Your task to perform on an android device: open app "Indeed Job Search" (install if not already installed) Image 0: 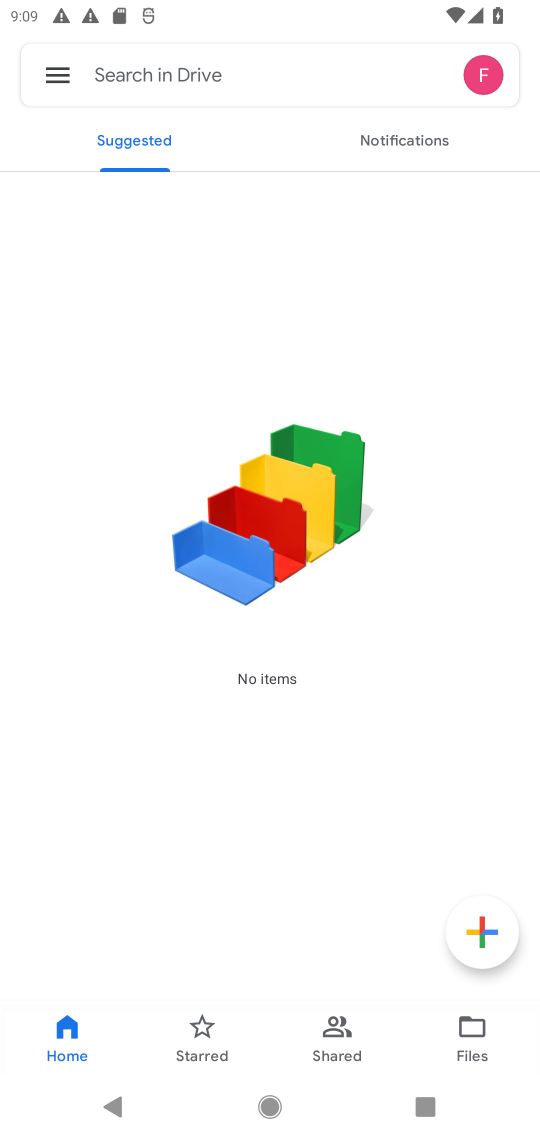
Step 0: press home button
Your task to perform on an android device: open app "Indeed Job Search" (install if not already installed) Image 1: 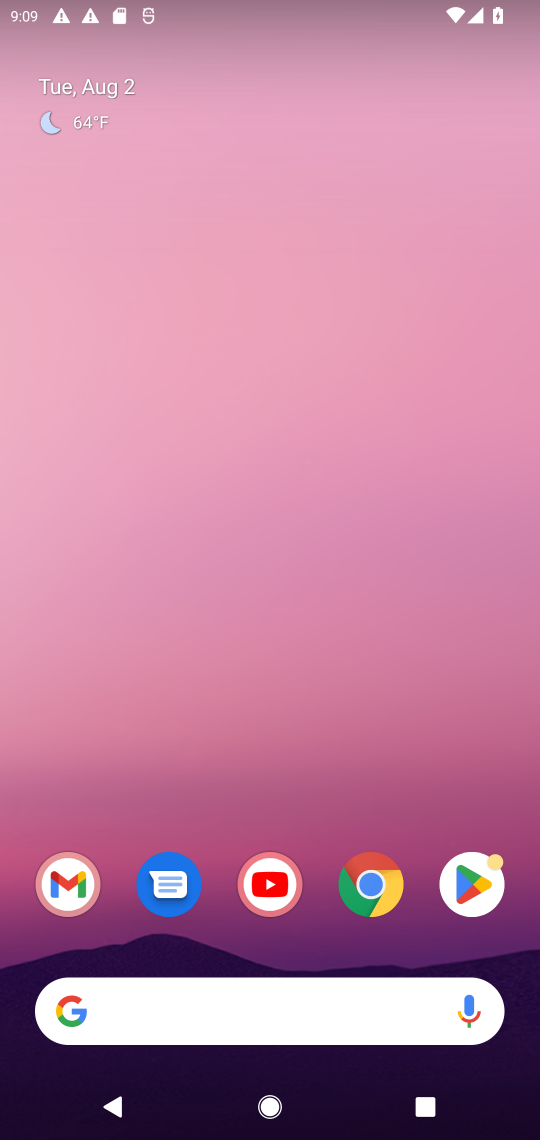
Step 1: click (475, 886)
Your task to perform on an android device: open app "Indeed Job Search" (install if not already installed) Image 2: 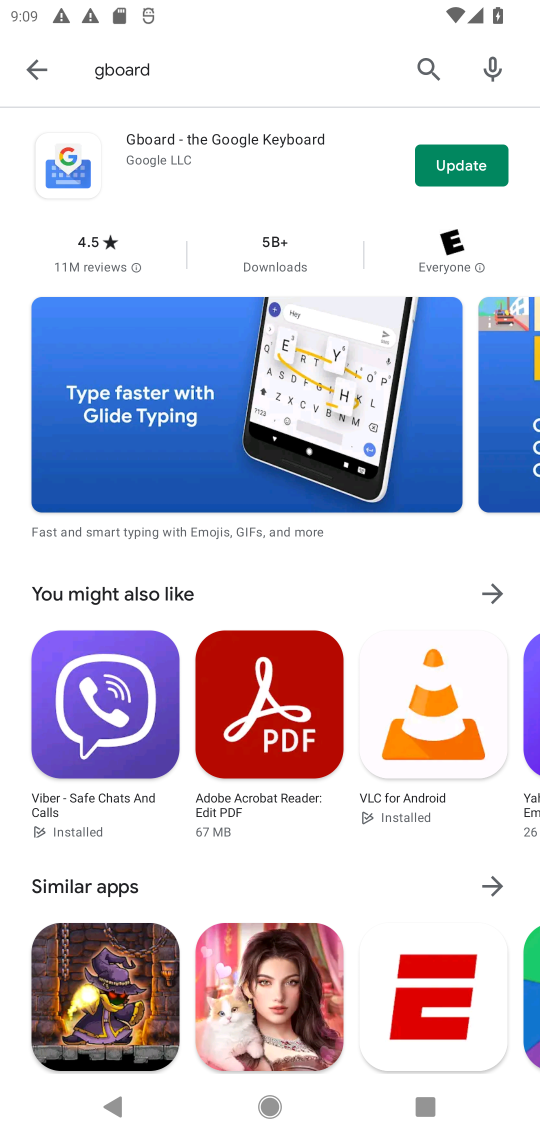
Step 2: click (417, 67)
Your task to perform on an android device: open app "Indeed Job Search" (install if not already installed) Image 3: 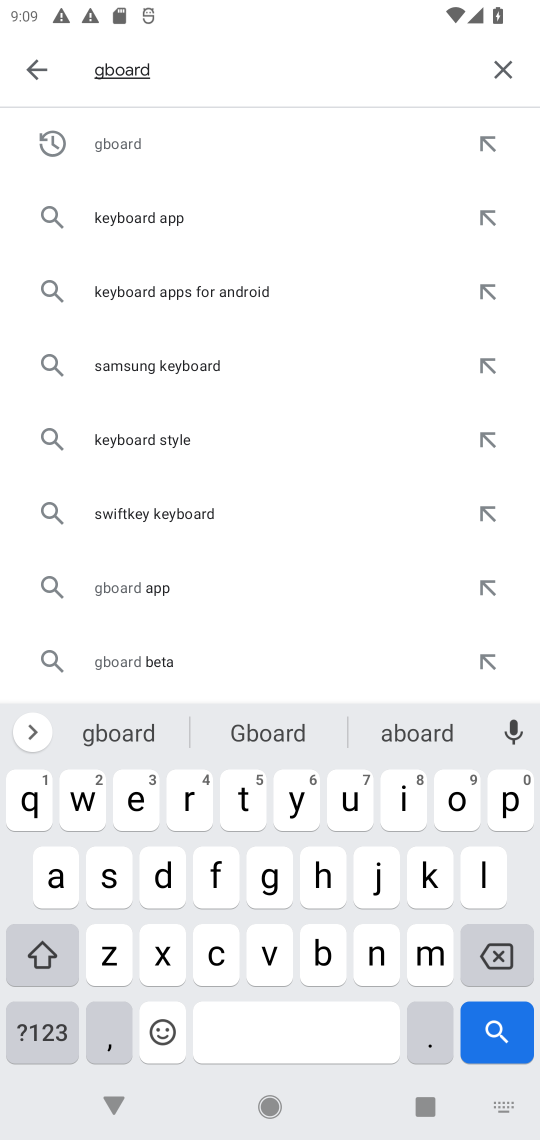
Step 3: click (506, 66)
Your task to perform on an android device: open app "Indeed Job Search" (install if not already installed) Image 4: 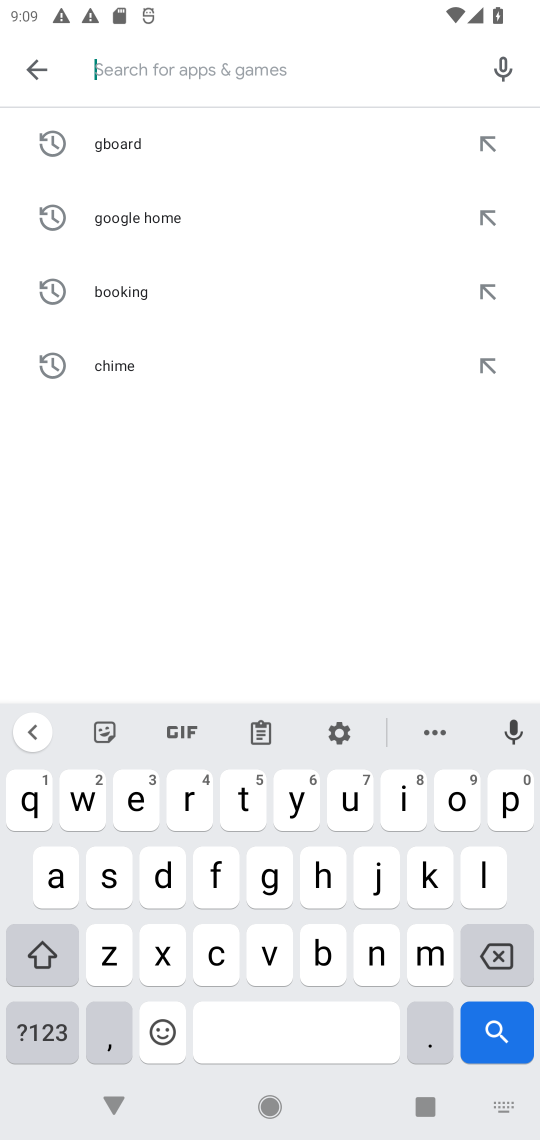
Step 4: click (400, 799)
Your task to perform on an android device: open app "Indeed Job Search" (install if not already installed) Image 5: 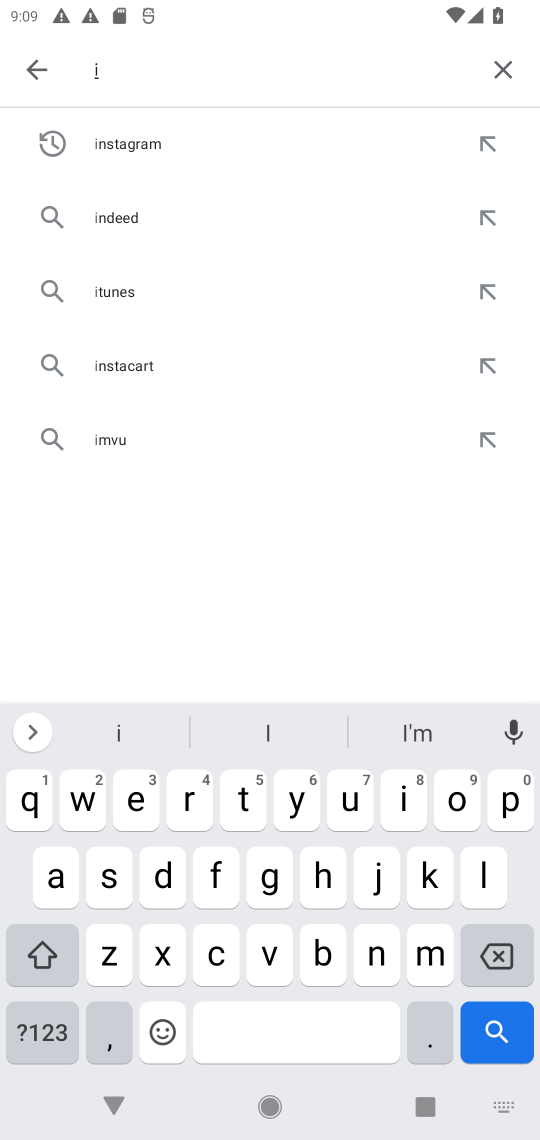
Step 5: click (370, 954)
Your task to perform on an android device: open app "Indeed Job Search" (install if not already installed) Image 6: 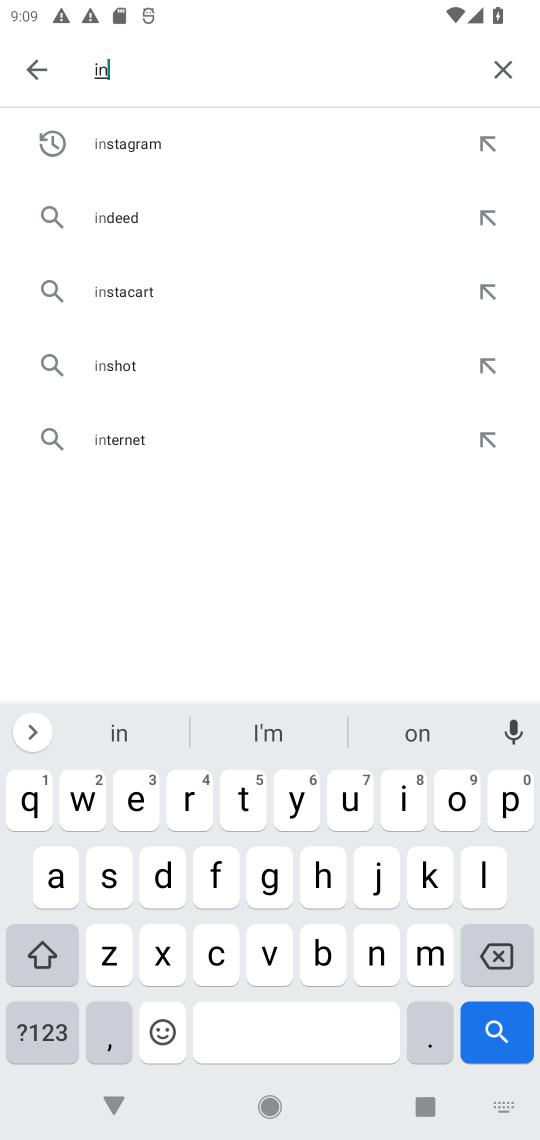
Step 6: click (112, 215)
Your task to perform on an android device: open app "Indeed Job Search" (install if not already installed) Image 7: 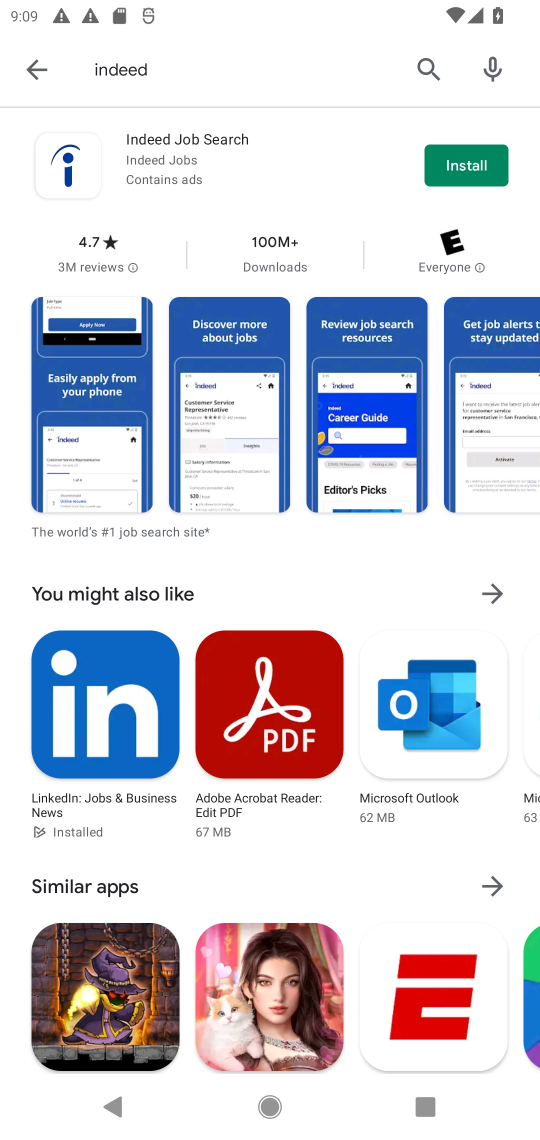
Step 7: click (470, 155)
Your task to perform on an android device: open app "Indeed Job Search" (install if not already installed) Image 8: 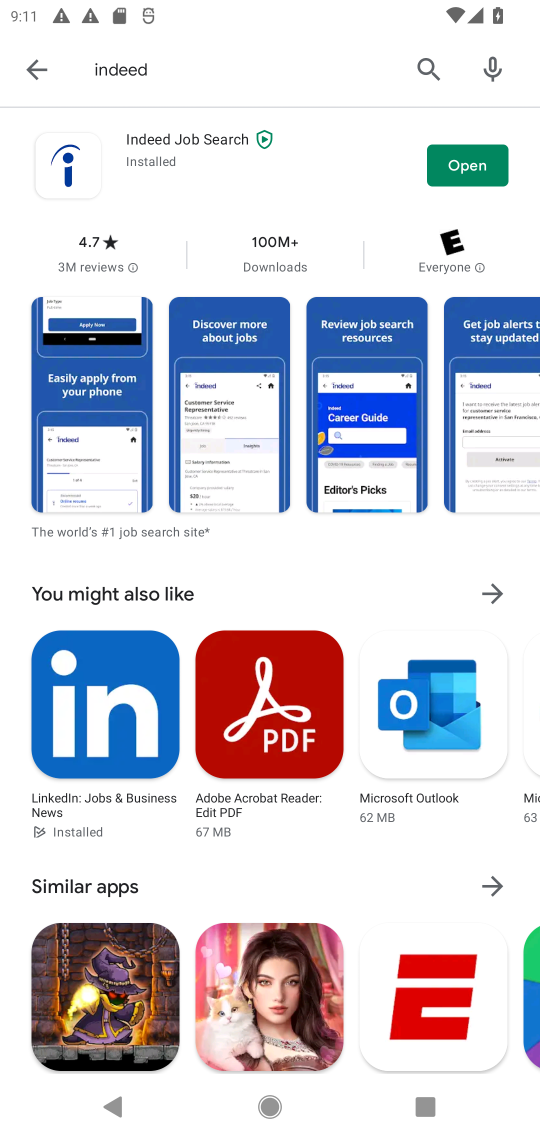
Step 8: click (439, 175)
Your task to perform on an android device: open app "Indeed Job Search" (install if not already installed) Image 9: 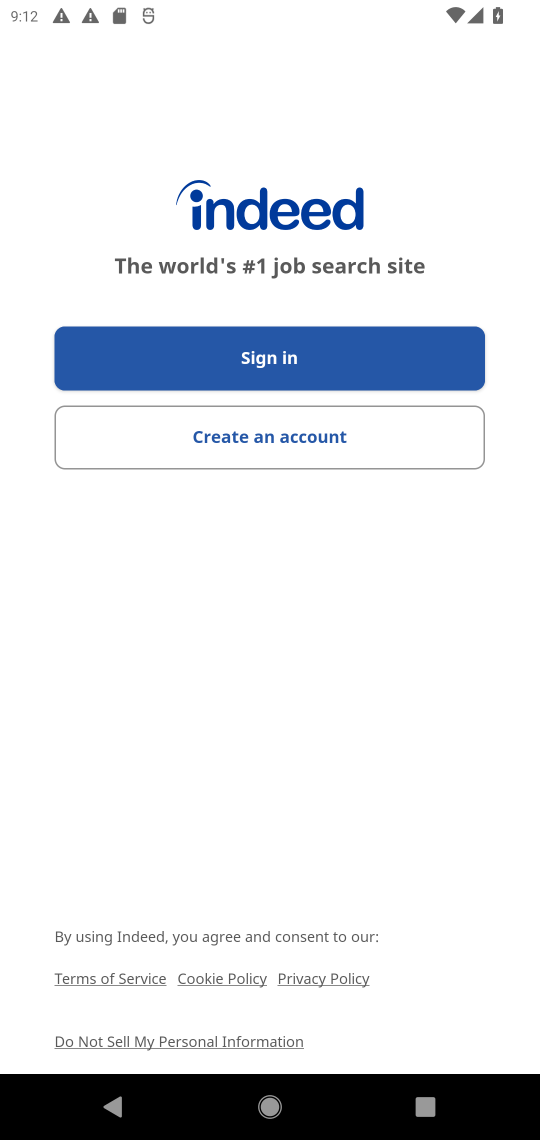
Step 9: task complete